Your task to perform on an android device: Open privacy settings Image 0: 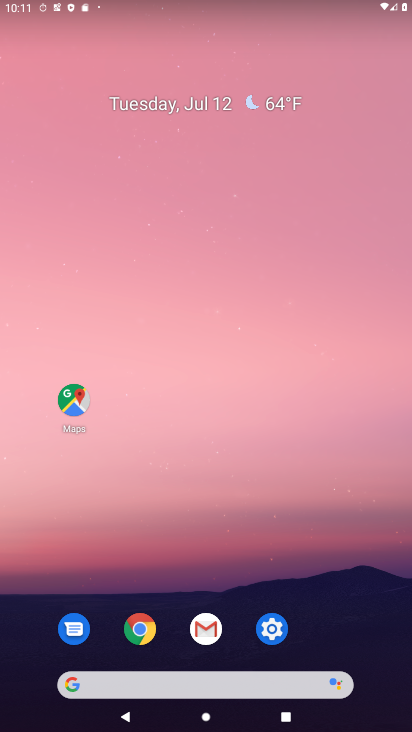
Step 0: click (268, 639)
Your task to perform on an android device: Open privacy settings Image 1: 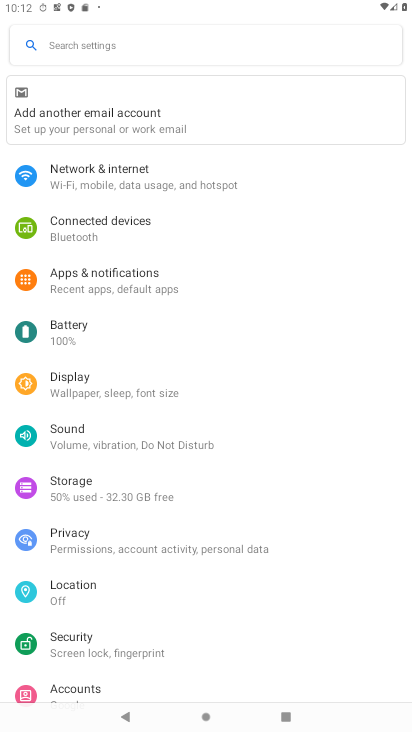
Step 1: click (91, 540)
Your task to perform on an android device: Open privacy settings Image 2: 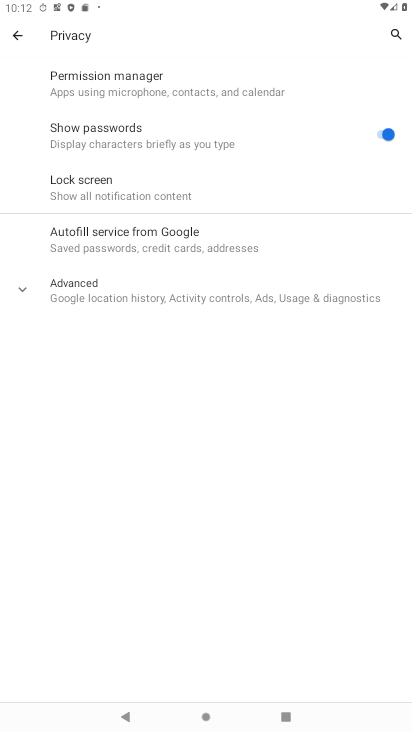
Step 2: task complete